Your task to perform on an android device: open wifi settings Image 0: 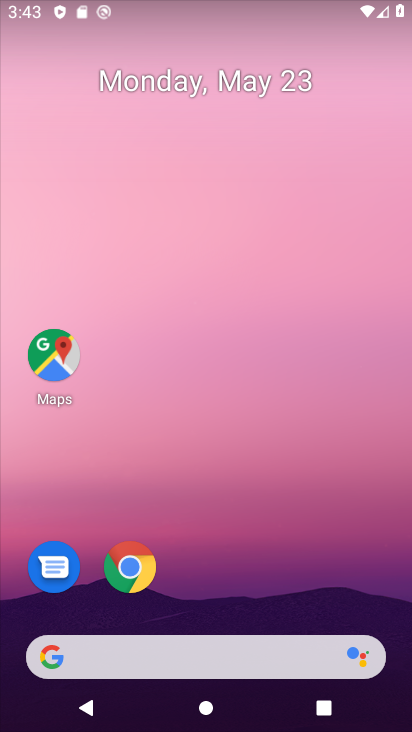
Step 0: drag from (393, 618) to (249, 110)
Your task to perform on an android device: open wifi settings Image 1: 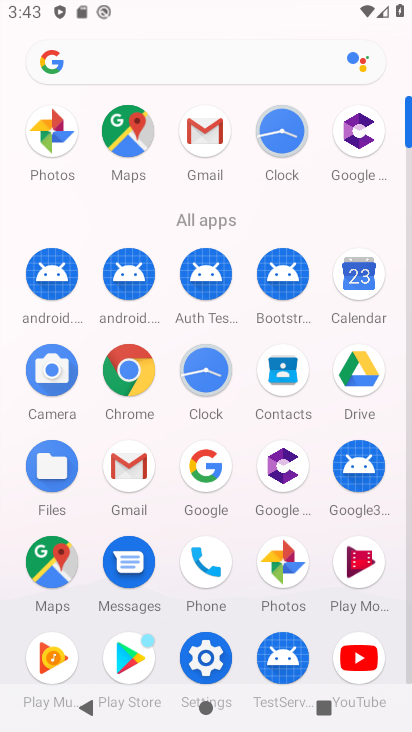
Step 1: click (204, 650)
Your task to perform on an android device: open wifi settings Image 2: 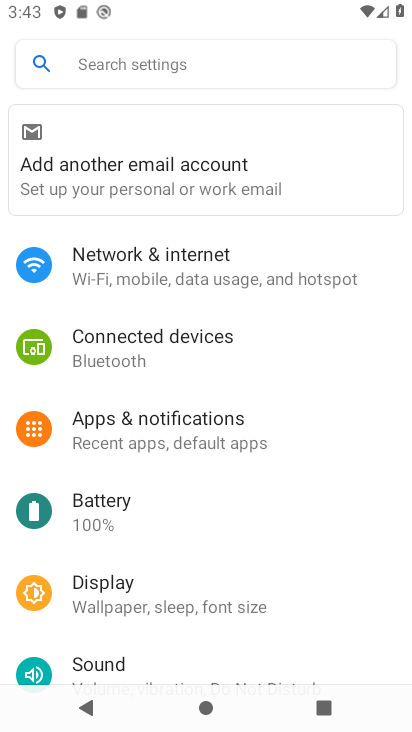
Step 2: click (123, 266)
Your task to perform on an android device: open wifi settings Image 3: 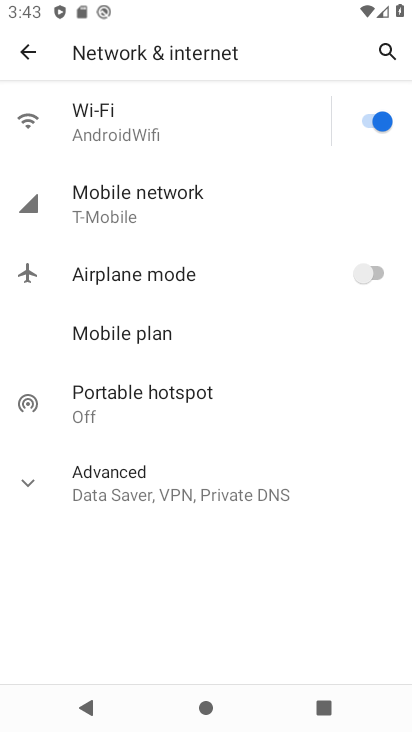
Step 3: click (82, 111)
Your task to perform on an android device: open wifi settings Image 4: 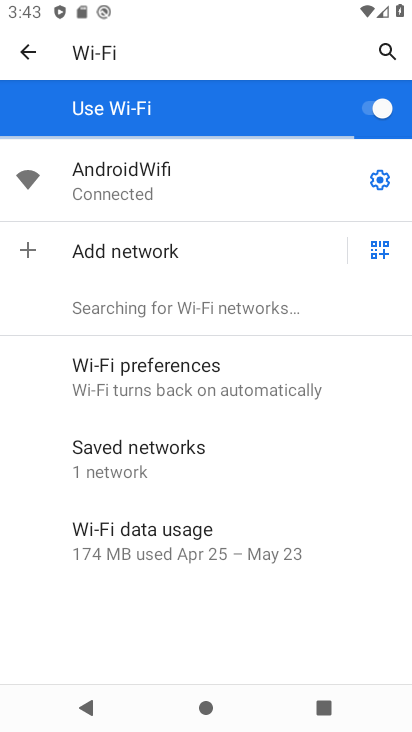
Step 4: click (377, 174)
Your task to perform on an android device: open wifi settings Image 5: 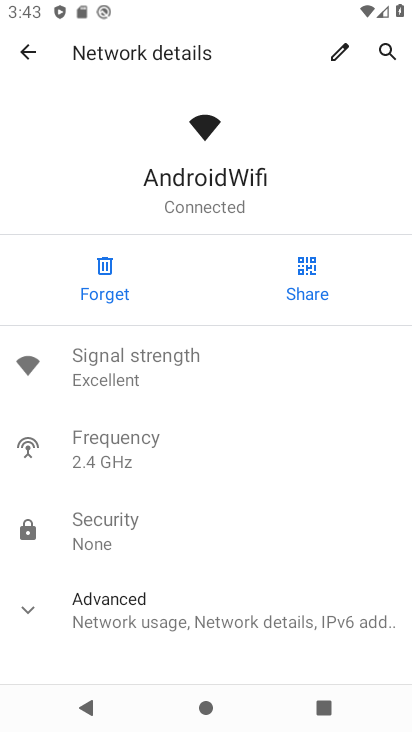
Step 5: click (27, 605)
Your task to perform on an android device: open wifi settings Image 6: 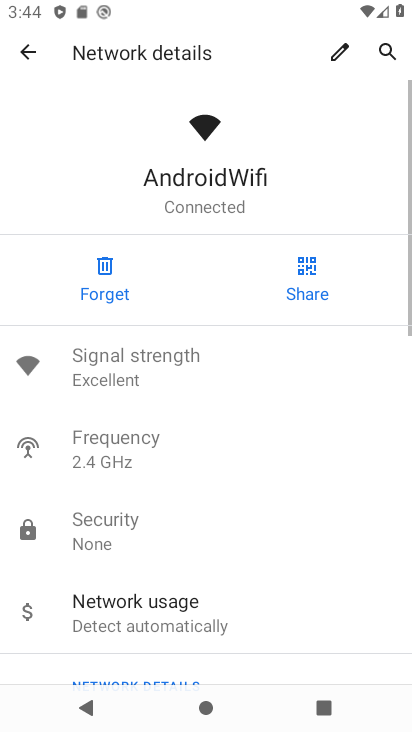
Step 6: drag from (352, 604) to (275, 288)
Your task to perform on an android device: open wifi settings Image 7: 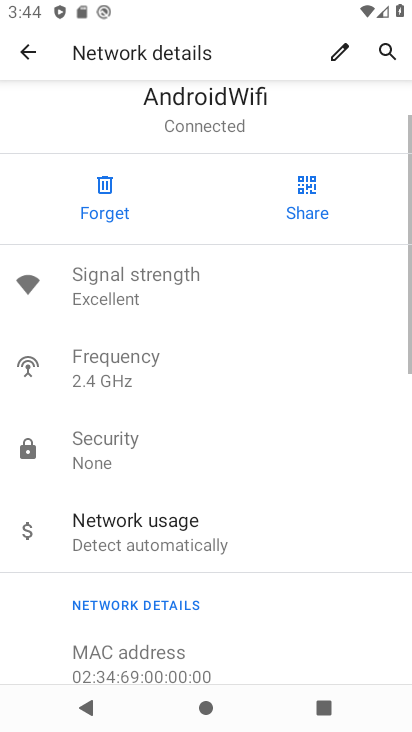
Step 7: click (275, 288)
Your task to perform on an android device: open wifi settings Image 8: 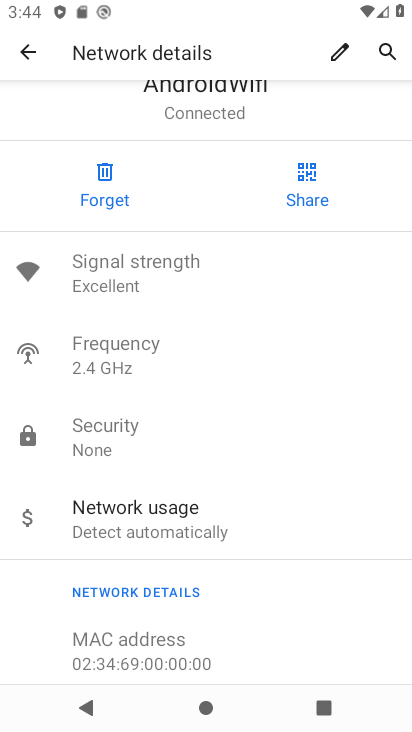
Step 8: task complete